Your task to perform on an android device: find which apps use the phone's location Image 0: 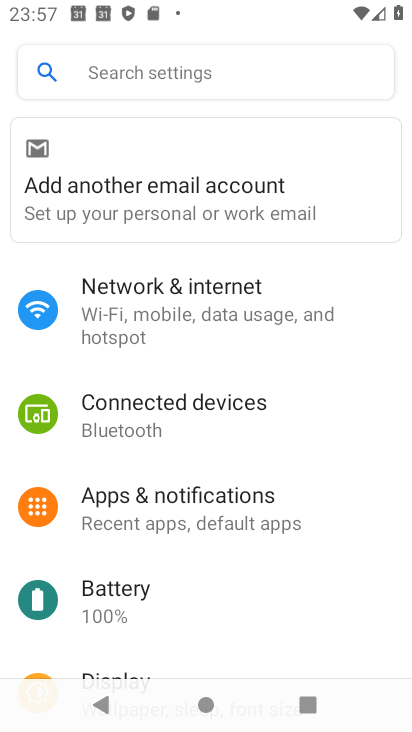
Step 0: click (289, 556)
Your task to perform on an android device: find which apps use the phone's location Image 1: 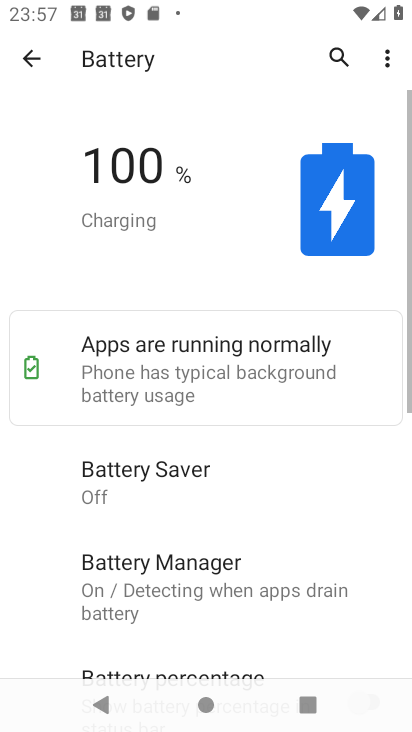
Step 1: drag from (223, 503) to (247, 87)
Your task to perform on an android device: find which apps use the phone's location Image 2: 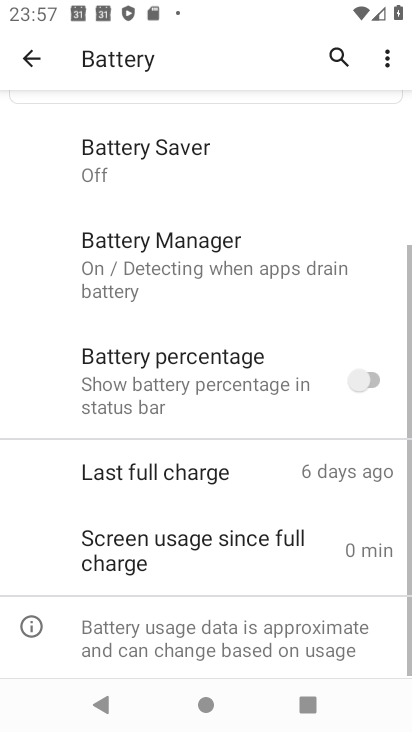
Step 2: drag from (185, 438) to (87, 131)
Your task to perform on an android device: find which apps use the phone's location Image 3: 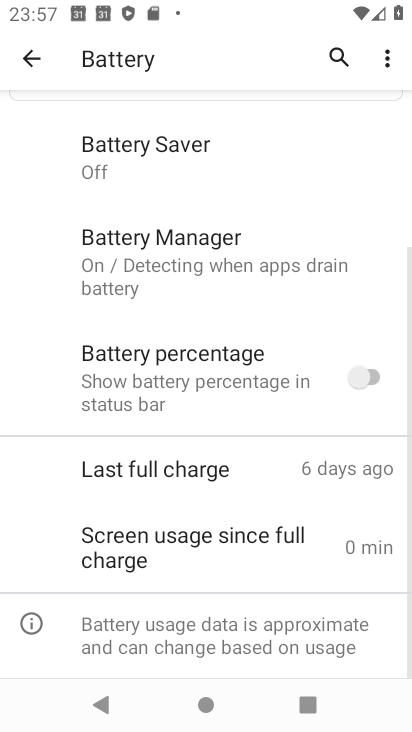
Step 3: click (33, 54)
Your task to perform on an android device: find which apps use the phone's location Image 4: 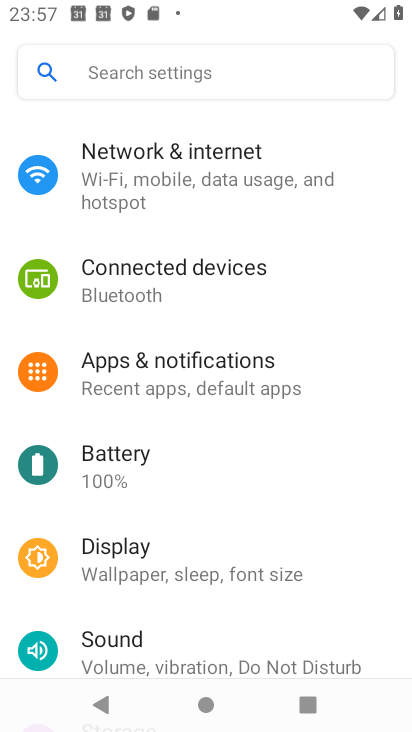
Step 4: click (35, 61)
Your task to perform on an android device: find which apps use the phone's location Image 5: 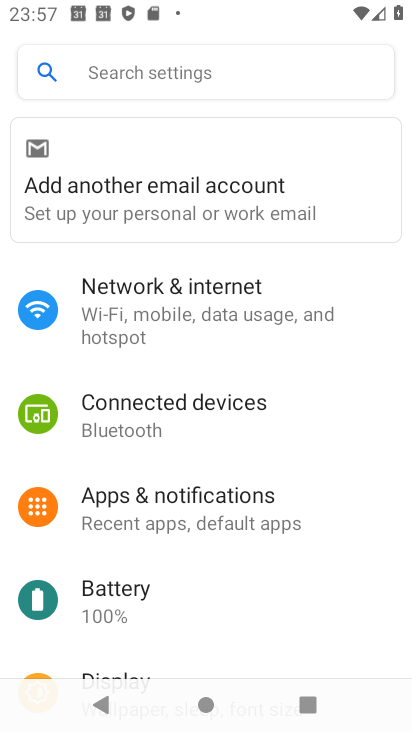
Step 5: click (129, 158)
Your task to perform on an android device: find which apps use the phone's location Image 6: 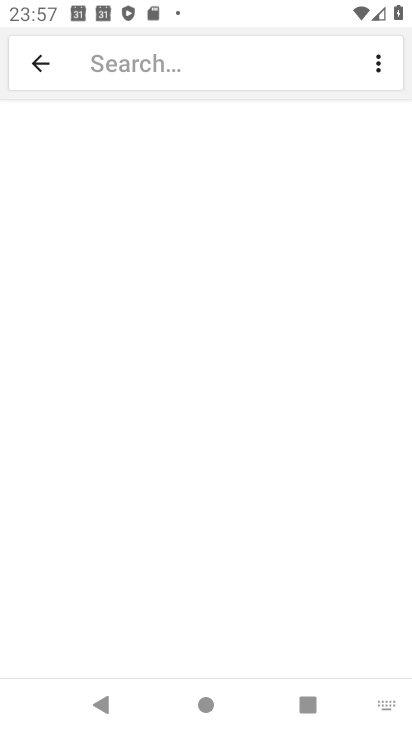
Step 6: click (146, 285)
Your task to perform on an android device: find which apps use the phone's location Image 7: 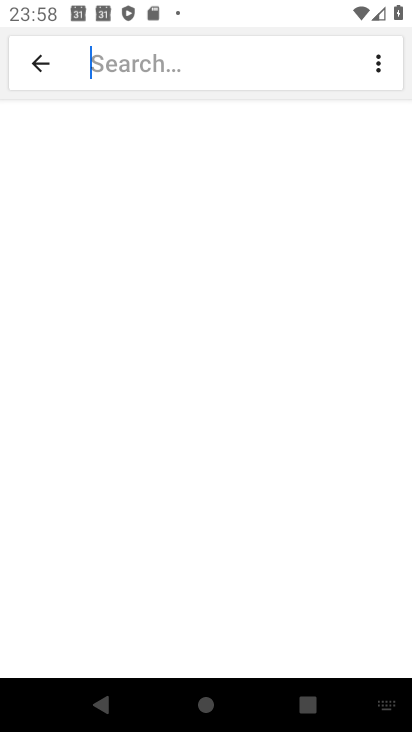
Step 7: click (57, 65)
Your task to perform on an android device: find which apps use the phone's location Image 8: 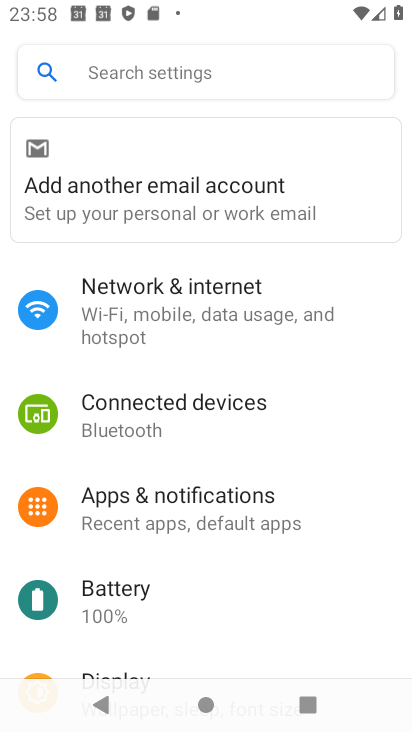
Step 8: drag from (182, 526) to (117, 166)
Your task to perform on an android device: find which apps use the phone's location Image 9: 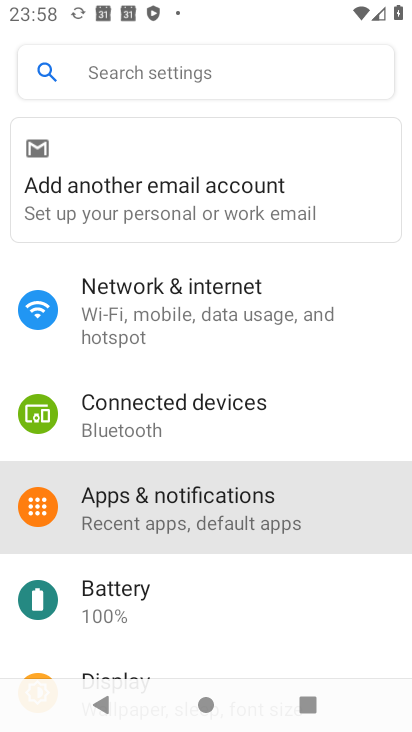
Step 9: drag from (183, 420) to (130, 96)
Your task to perform on an android device: find which apps use the phone's location Image 10: 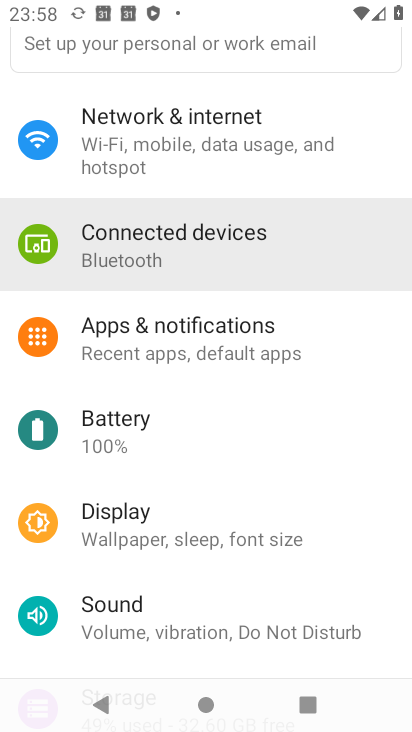
Step 10: drag from (119, 429) to (133, 217)
Your task to perform on an android device: find which apps use the phone's location Image 11: 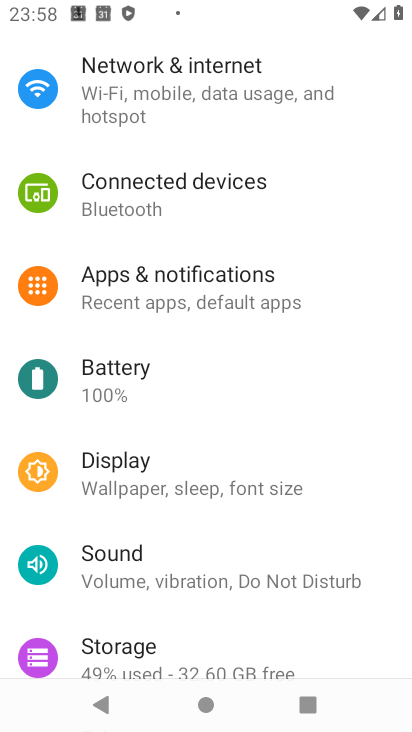
Step 11: drag from (194, 543) to (188, 247)
Your task to perform on an android device: find which apps use the phone's location Image 12: 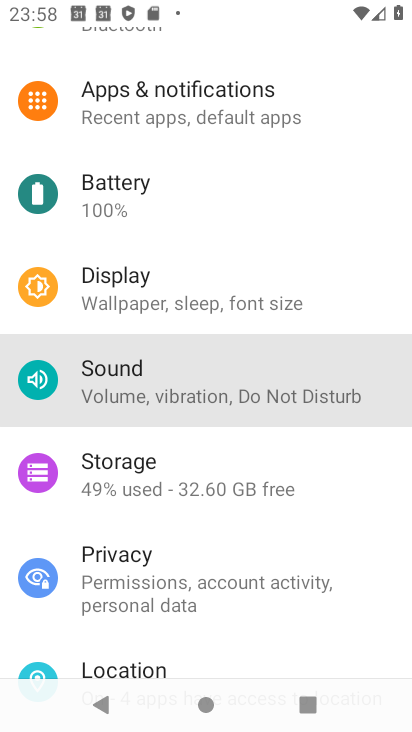
Step 12: click (165, 273)
Your task to perform on an android device: find which apps use the phone's location Image 13: 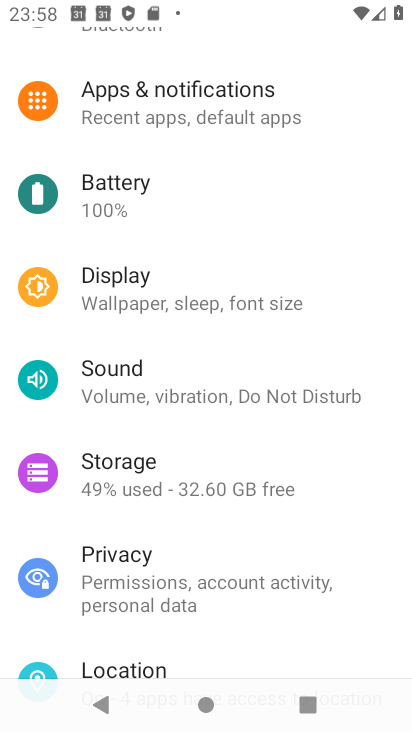
Step 13: drag from (182, 546) to (113, 112)
Your task to perform on an android device: find which apps use the phone's location Image 14: 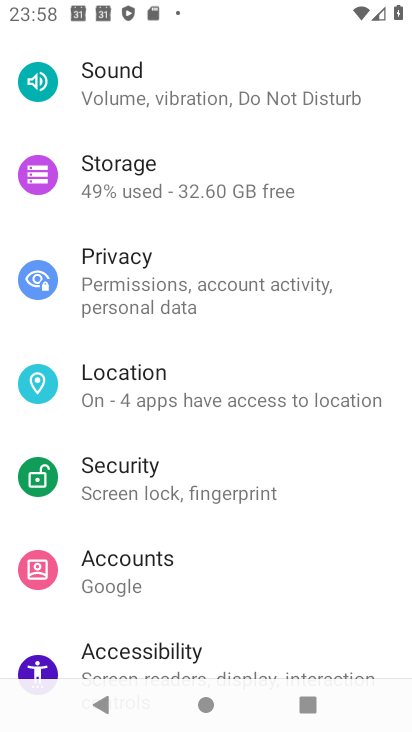
Step 14: drag from (193, 454) to (160, 112)
Your task to perform on an android device: find which apps use the phone's location Image 15: 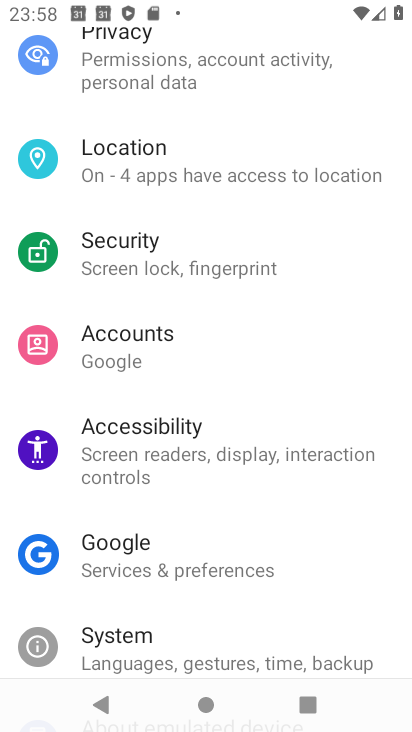
Step 15: click (125, 156)
Your task to perform on an android device: find which apps use the phone's location Image 16: 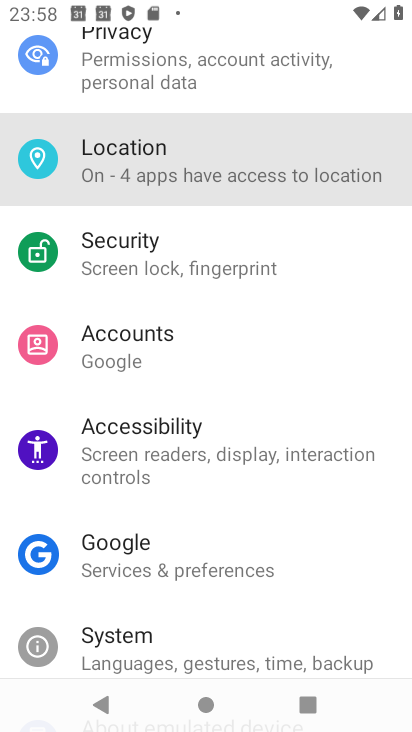
Step 16: click (124, 168)
Your task to perform on an android device: find which apps use the phone's location Image 17: 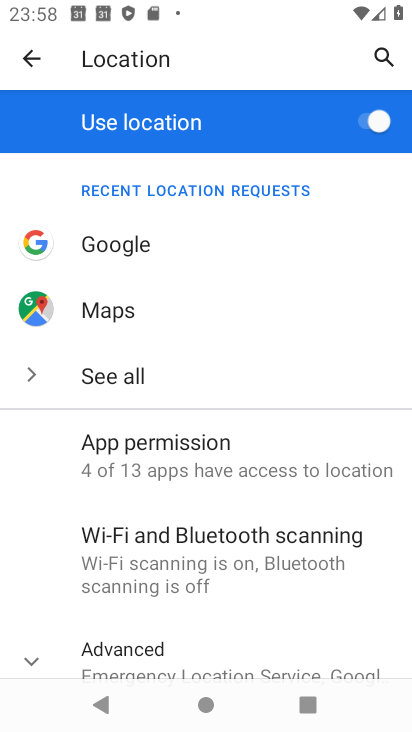
Step 17: task complete